Your task to perform on an android device: Check the weather Image 0: 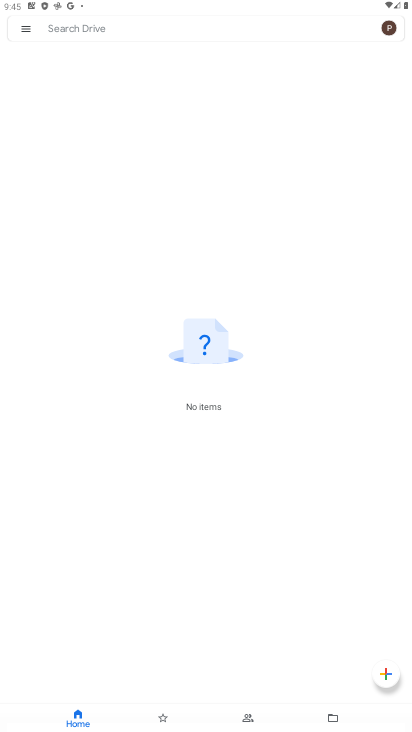
Step 0: press home button
Your task to perform on an android device: Check the weather Image 1: 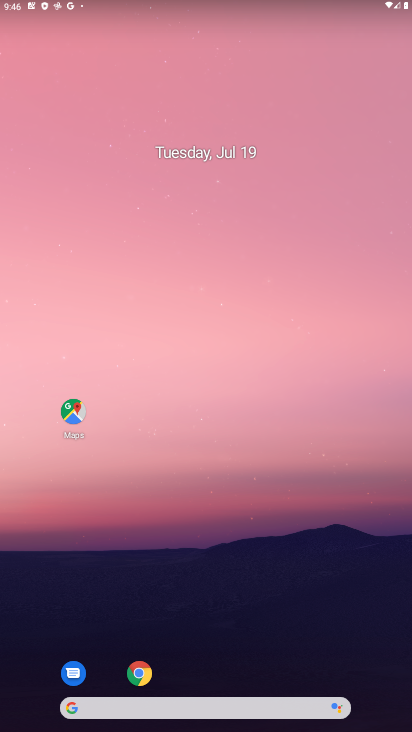
Step 1: click (293, 707)
Your task to perform on an android device: Check the weather Image 2: 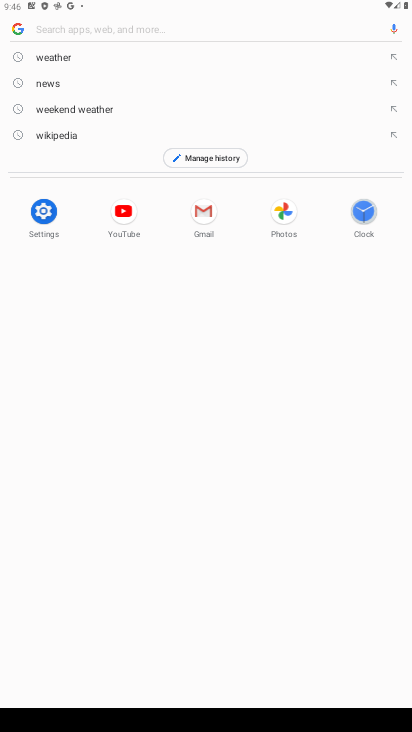
Step 2: click (127, 59)
Your task to perform on an android device: Check the weather Image 3: 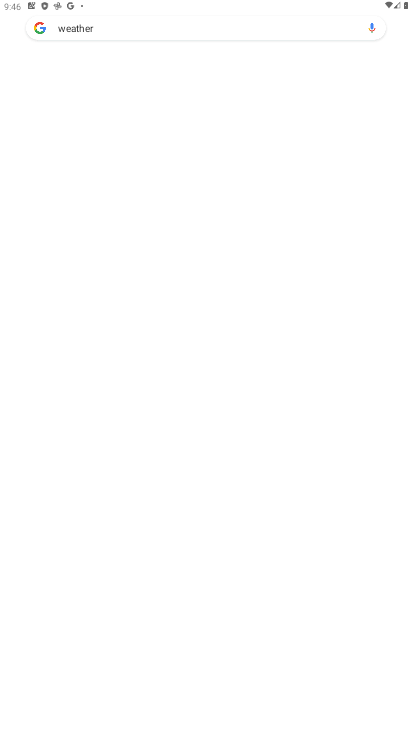
Step 3: task complete